Your task to perform on an android device: turn off airplane mode Image 0: 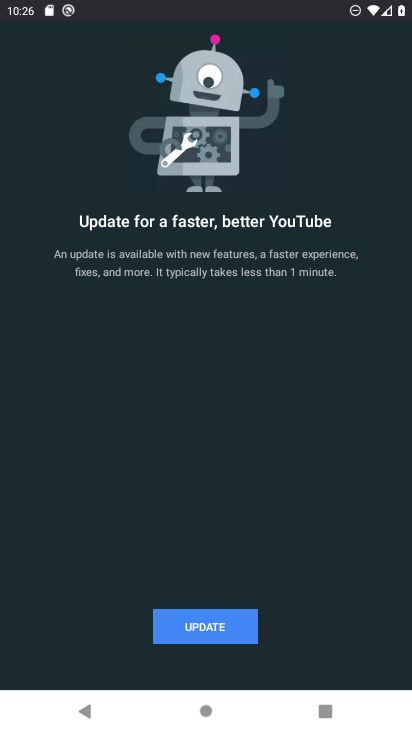
Step 0: press back button
Your task to perform on an android device: turn off airplane mode Image 1: 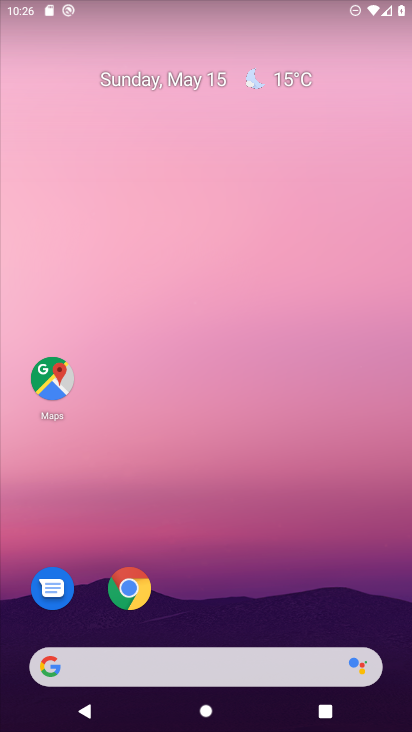
Step 1: drag from (233, 611) to (330, 7)
Your task to perform on an android device: turn off airplane mode Image 2: 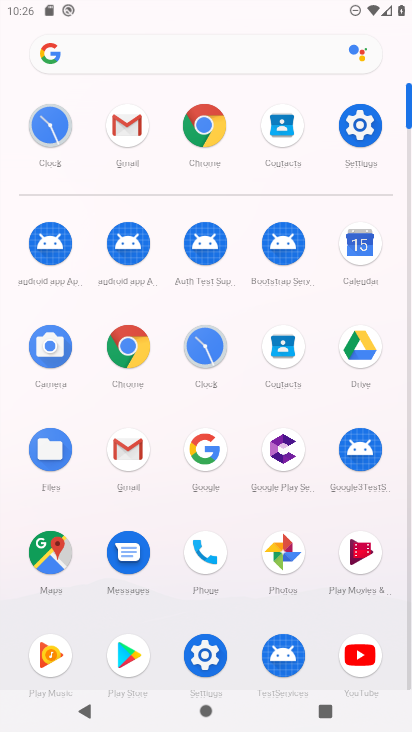
Step 2: click (360, 146)
Your task to perform on an android device: turn off airplane mode Image 3: 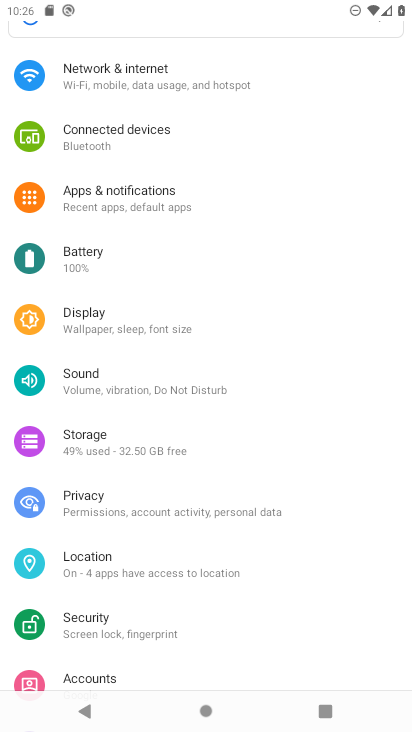
Step 3: click (189, 90)
Your task to perform on an android device: turn off airplane mode Image 4: 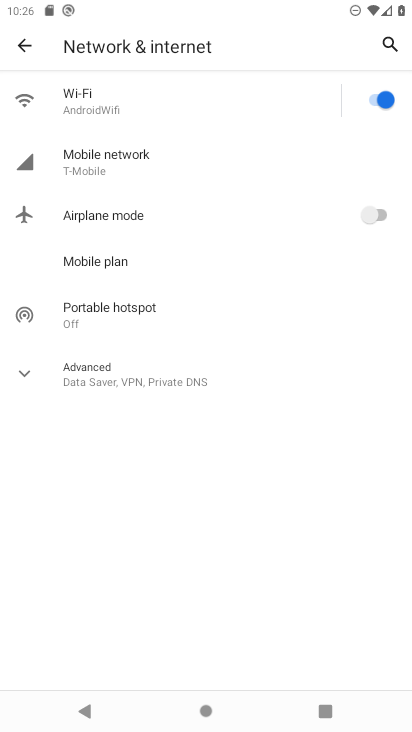
Step 4: task complete